Your task to perform on an android device: turn on the 12-hour format for clock Image 0: 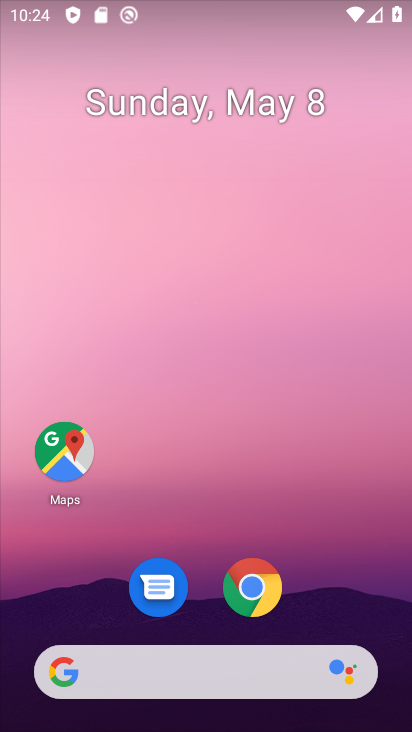
Step 0: drag from (210, 322) to (62, 34)
Your task to perform on an android device: turn on the 12-hour format for clock Image 1: 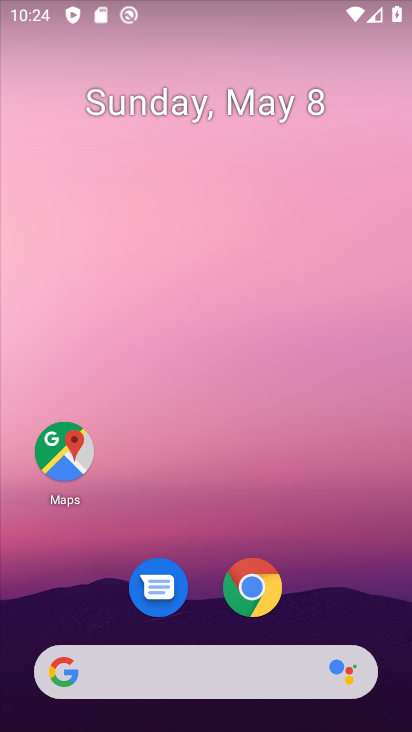
Step 1: drag from (325, 557) to (103, 1)
Your task to perform on an android device: turn on the 12-hour format for clock Image 2: 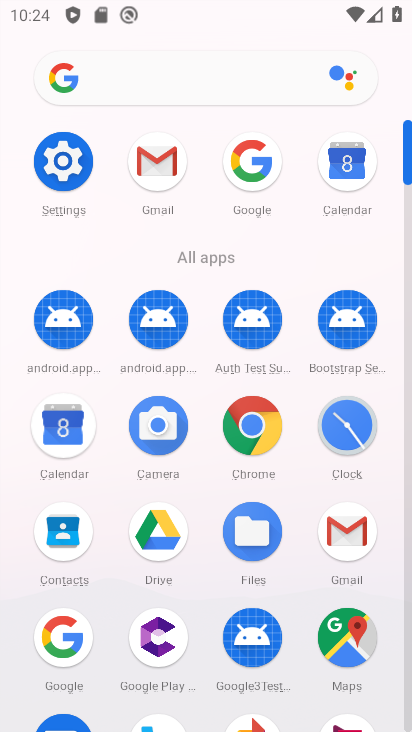
Step 2: click (342, 417)
Your task to perform on an android device: turn on the 12-hour format for clock Image 3: 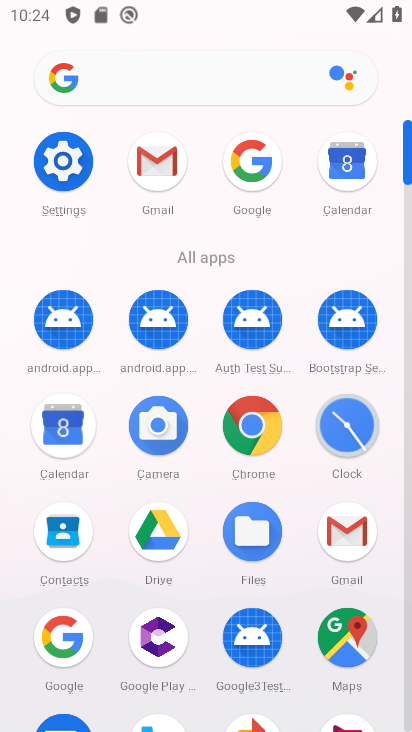
Step 3: click (344, 418)
Your task to perform on an android device: turn on the 12-hour format for clock Image 4: 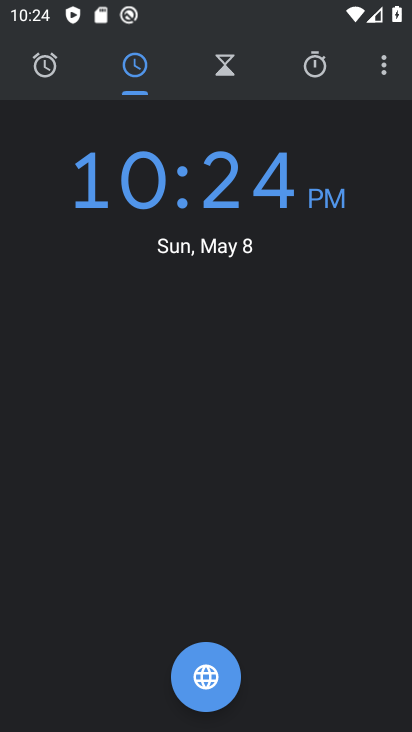
Step 4: click (375, 77)
Your task to perform on an android device: turn on the 12-hour format for clock Image 5: 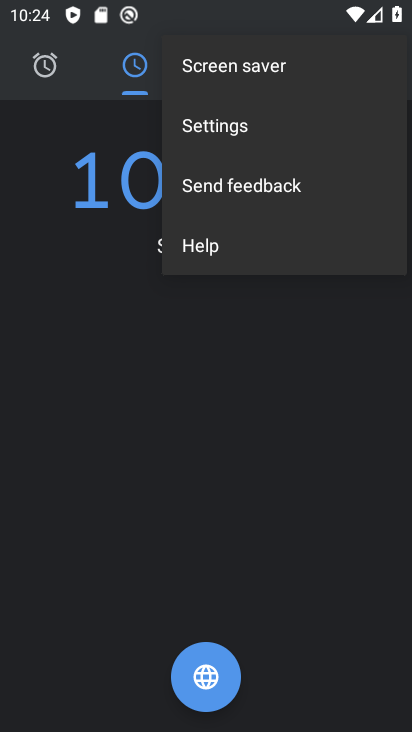
Step 5: click (216, 130)
Your task to perform on an android device: turn on the 12-hour format for clock Image 6: 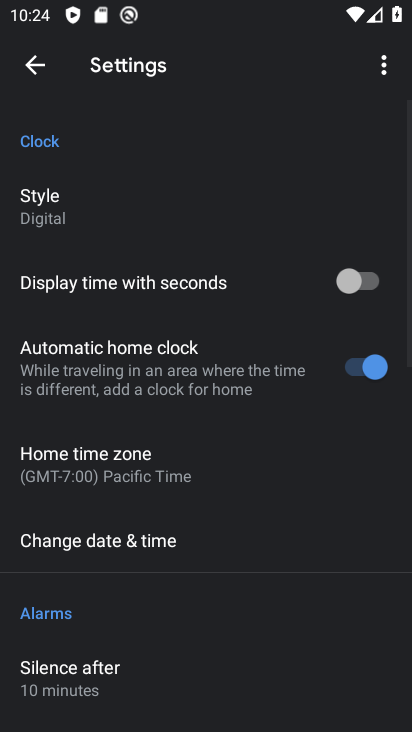
Step 6: drag from (157, 629) to (38, 97)
Your task to perform on an android device: turn on the 12-hour format for clock Image 7: 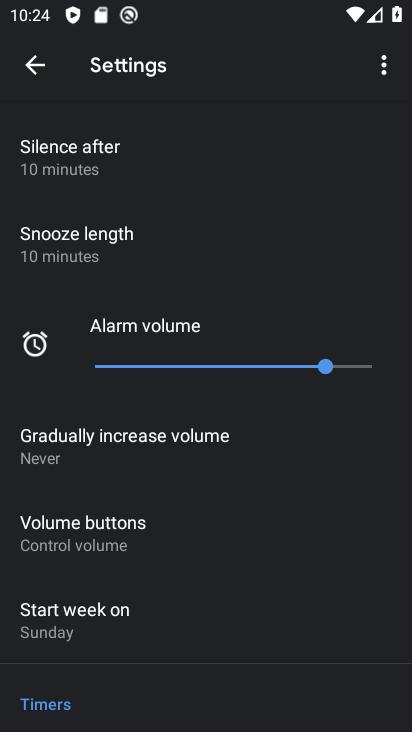
Step 7: drag from (208, 650) to (127, 70)
Your task to perform on an android device: turn on the 12-hour format for clock Image 8: 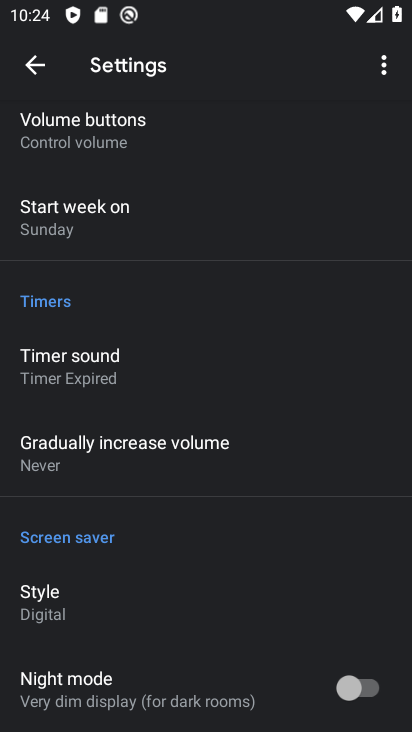
Step 8: drag from (178, 606) to (110, 143)
Your task to perform on an android device: turn on the 12-hour format for clock Image 9: 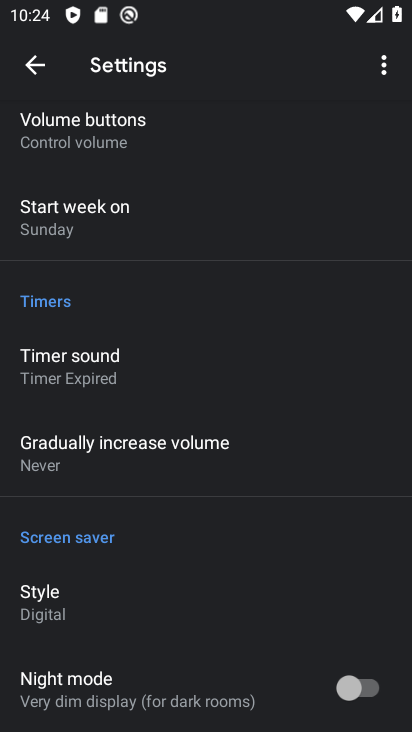
Step 9: click (36, 58)
Your task to perform on an android device: turn on the 12-hour format for clock Image 10: 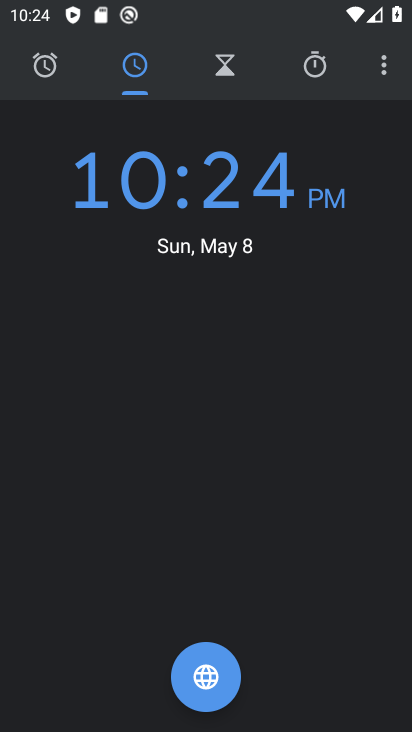
Step 10: click (378, 72)
Your task to perform on an android device: turn on the 12-hour format for clock Image 11: 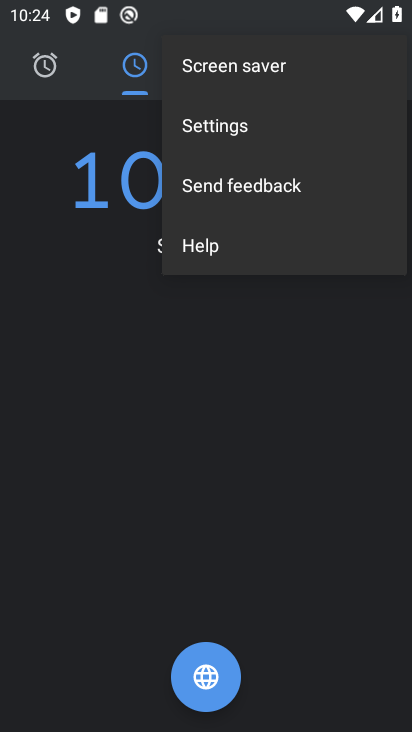
Step 11: click (213, 130)
Your task to perform on an android device: turn on the 12-hour format for clock Image 12: 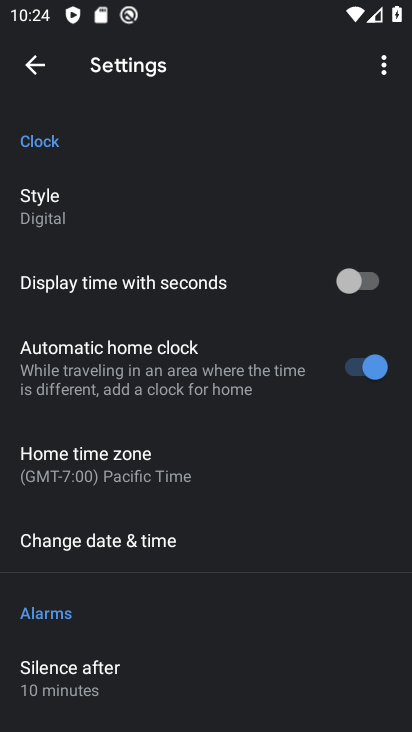
Step 12: drag from (223, 618) to (76, 170)
Your task to perform on an android device: turn on the 12-hour format for clock Image 13: 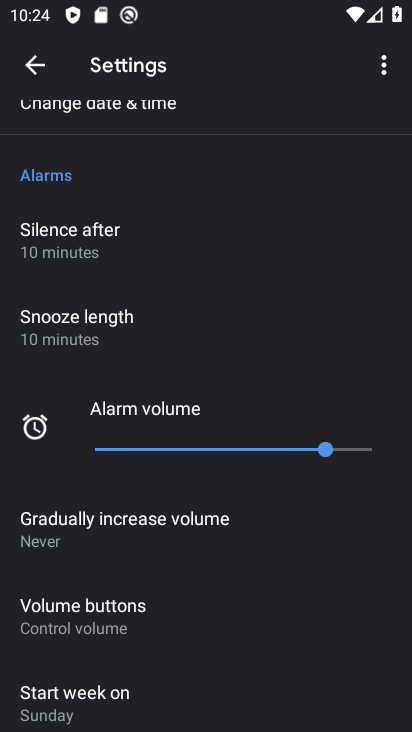
Step 13: drag from (226, 623) to (150, 142)
Your task to perform on an android device: turn on the 12-hour format for clock Image 14: 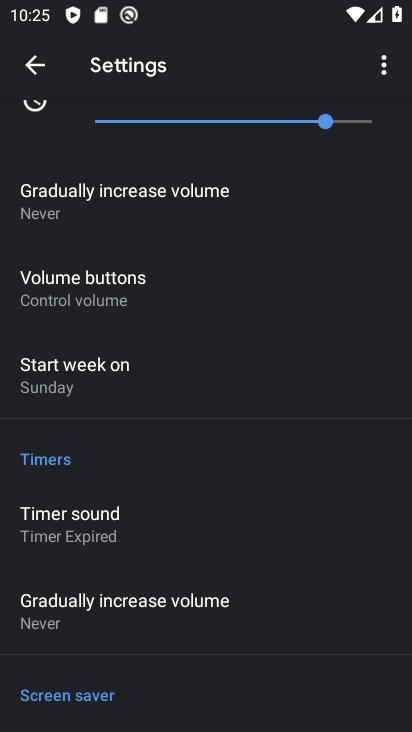
Step 14: drag from (288, 641) to (222, 143)
Your task to perform on an android device: turn on the 12-hour format for clock Image 15: 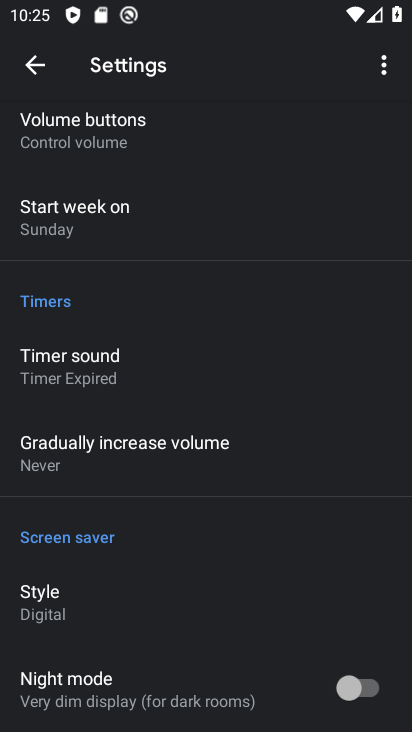
Step 15: drag from (213, 600) to (220, 206)
Your task to perform on an android device: turn on the 12-hour format for clock Image 16: 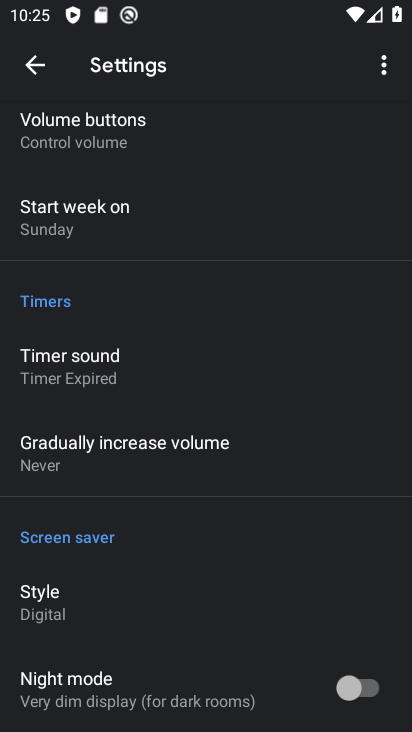
Step 16: drag from (225, 214) to (284, 667)
Your task to perform on an android device: turn on the 12-hour format for clock Image 17: 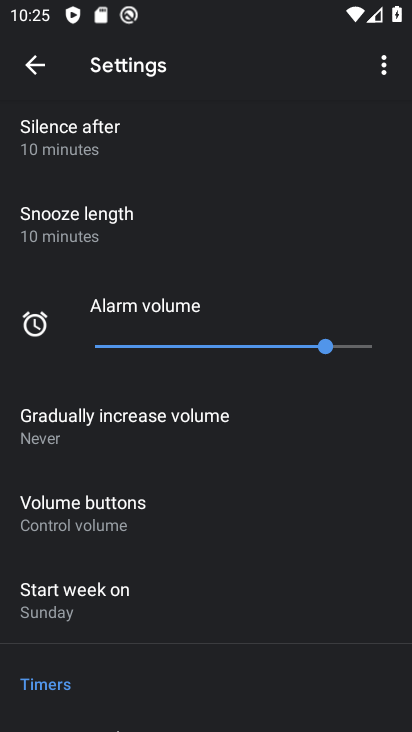
Step 17: click (34, 75)
Your task to perform on an android device: turn on the 12-hour format for clock Image 18: 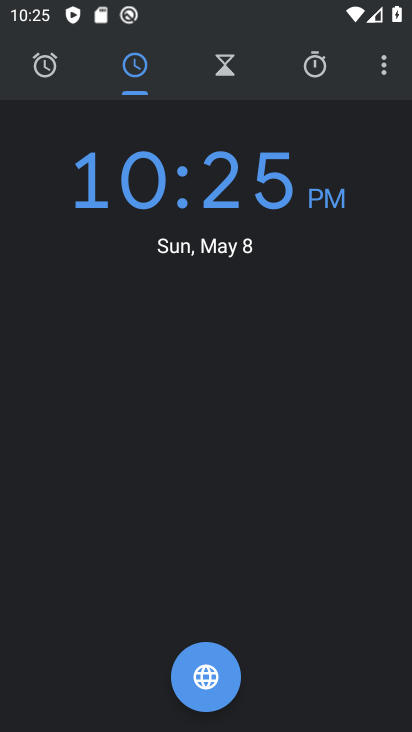
Step 18: click (375, 70)
Your task to perform on an android device: turn on the 12-hour format for clock Image 19: 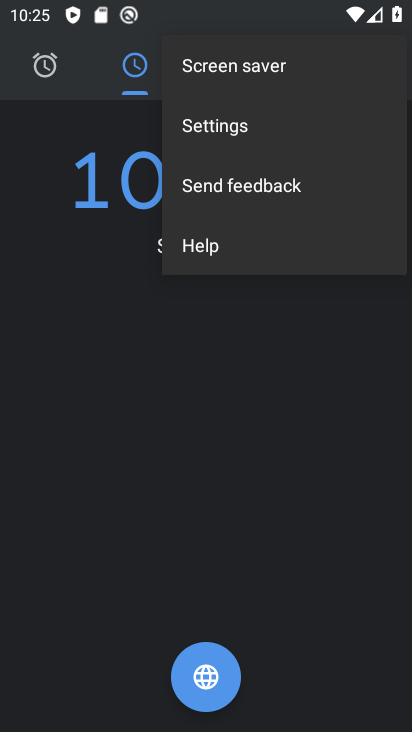
Step 19: click (206, 134)
Your task to perform on an android device: turn on the 12-hour format for clock Image 20: 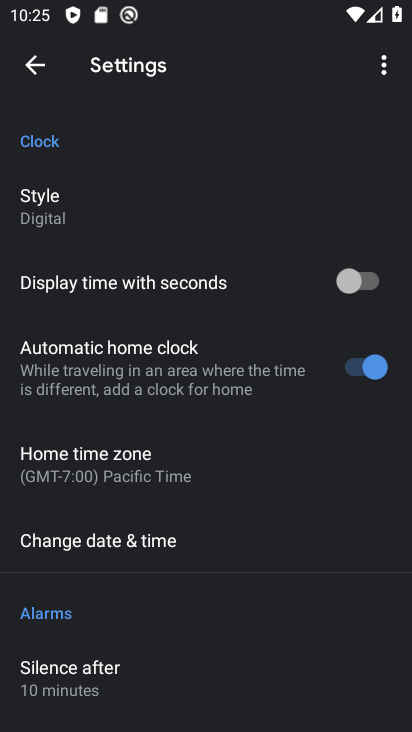
Step 20: click (104, 541)
Your task to perform on an android device: turn on the 12-hour format for clock Image 21: 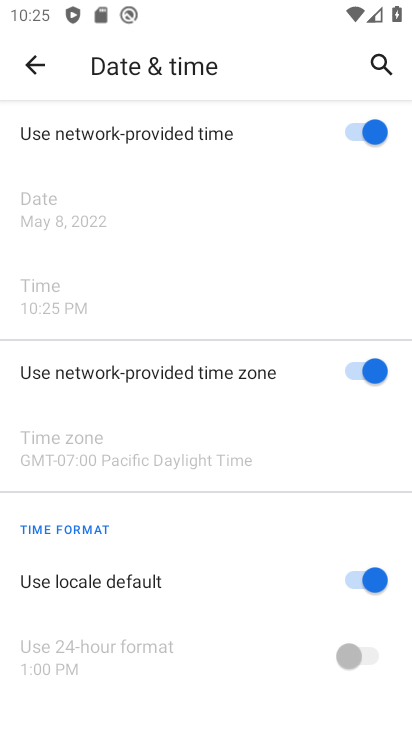
Step 21: task complete